Your task to perform on an android device: Open Youtube and go to the subscriptions tab Image 0: 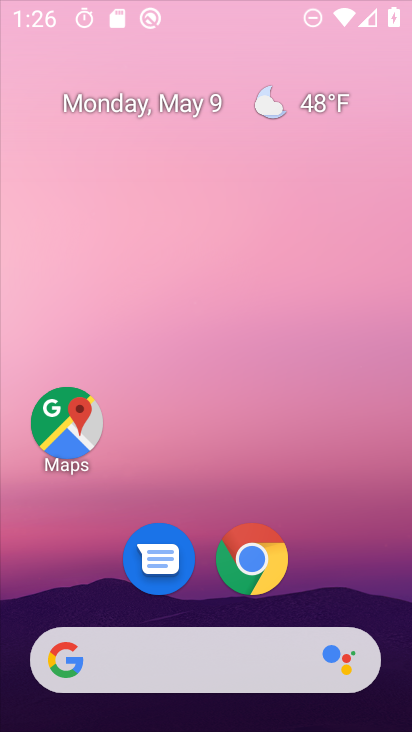
Step 0: click (354, 119)
Your task to perform on an android device: Open Youtube and go to the subscriptions tab Image 1: 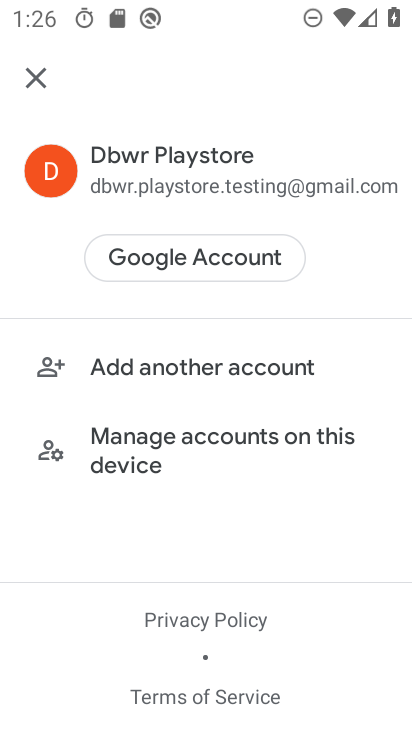
Step 1: drag from (225, 586) to (230, 288)
Your task to perform on an android device: Open Youtube and go to the subscriptions tab Image 2: 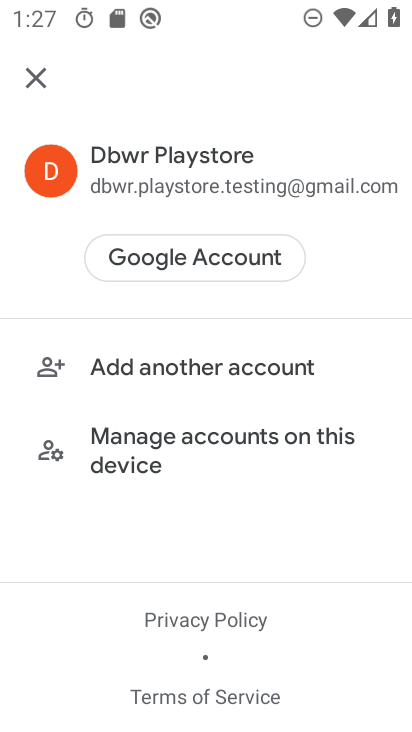
Step 2: click (39, 81)
Your task to perform on an android device: Open Youtube and go to the subscriptions tab Image 3: 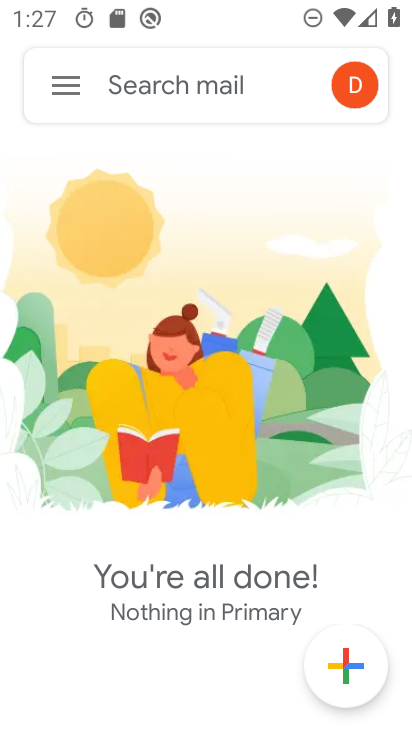
Step 3: drag from (219, 599) to (222, 155)
Your task to perform on an android device: Open Youtube and go to the subscriptions tab Image 4: 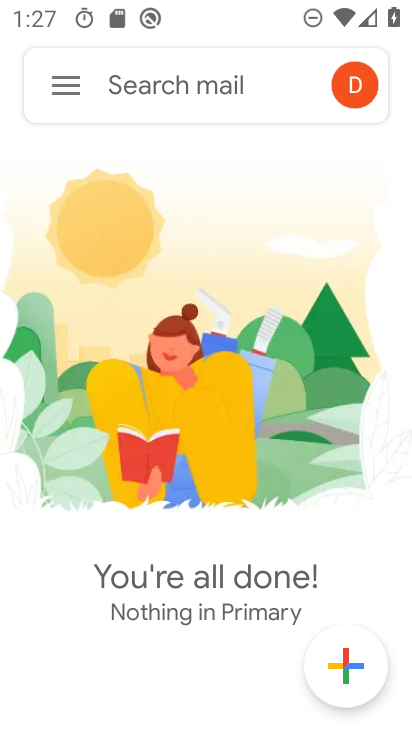
Step 4: drag from (225, 532) to (243, 375)
Your task to perform on an android device: Open Youtube and go to the subscriptions tab Image 5: 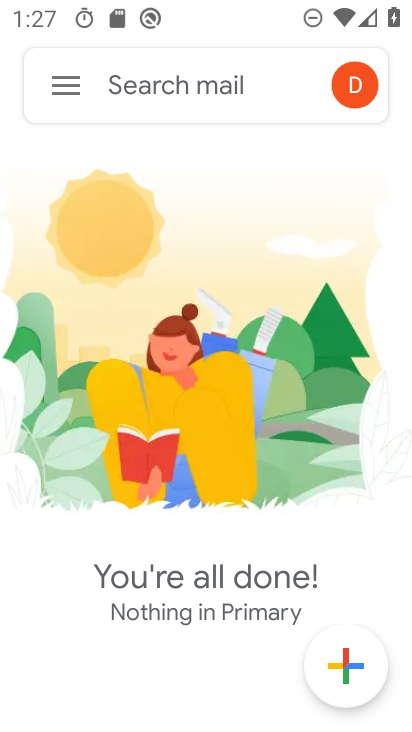
Step 5: press home button
Your task to perform on an android device: Open Youtube and go to the subscriptions tab Image 6: 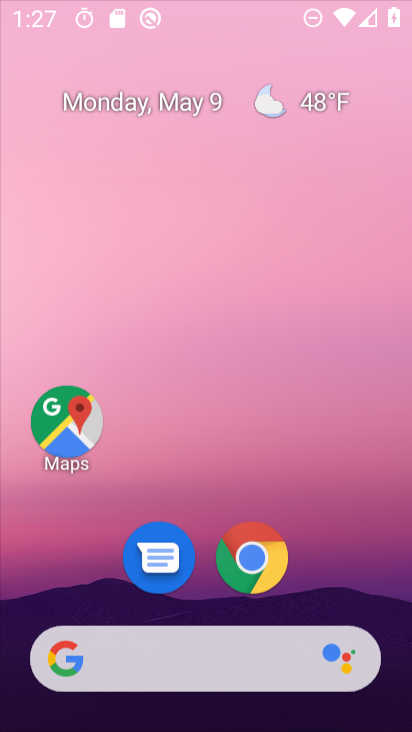
Step 6: drag from (186, 602) to (244, 129)
Your task to perform on an android device: Open Youtube and go to the subscriptions tab Image 7: 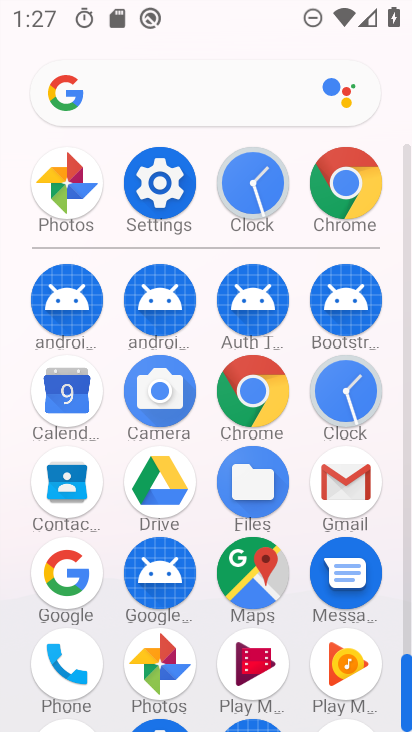
Step 7: drag from (214, 688) to (198, 231)
Your task to perform on an android device: Open Youtube and go to the subscriptions tab Image 8: 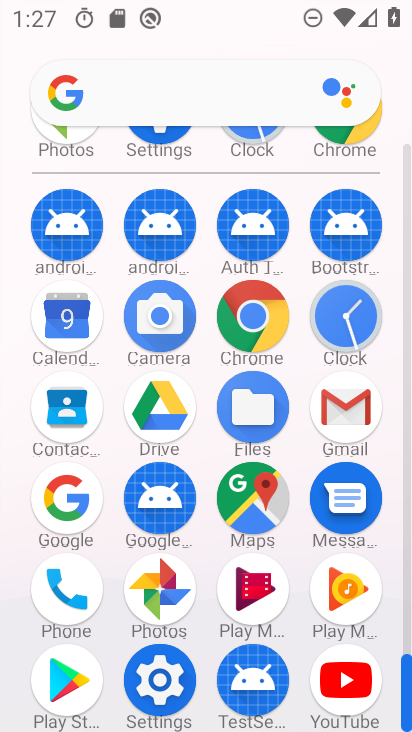
Step 8: click (340, 668)
Your task to perform on an android device: Open Youtube and go to the subscriptions tab Image 9: 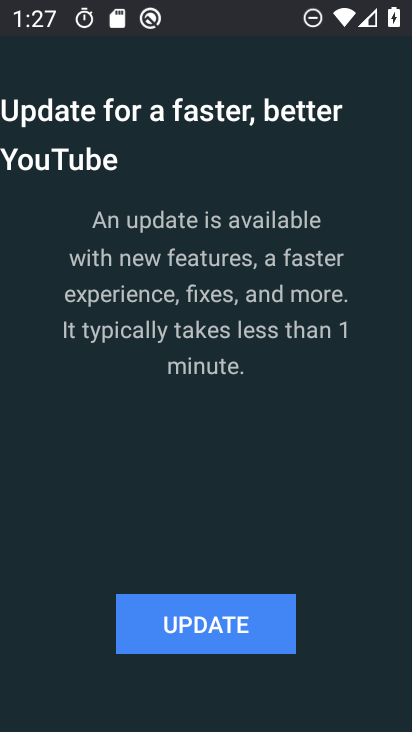
Step 9: task complete